Your task to perform on an android device: toggle show notifications on the lock screen Image 0: 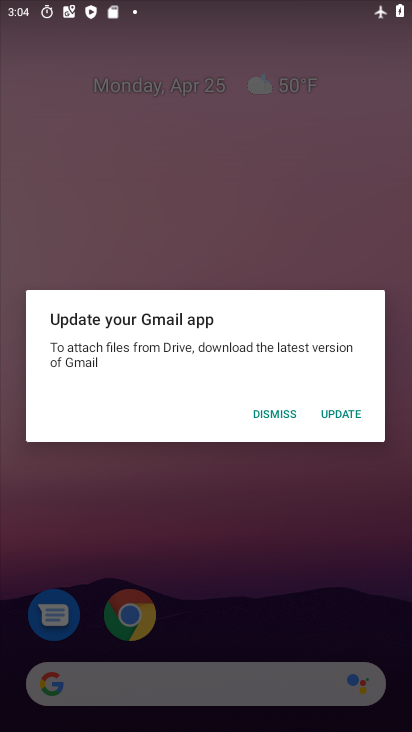
Step 0: press home button
Your task to perform on an android device: toggle show notifications on the lock screen Image 1: 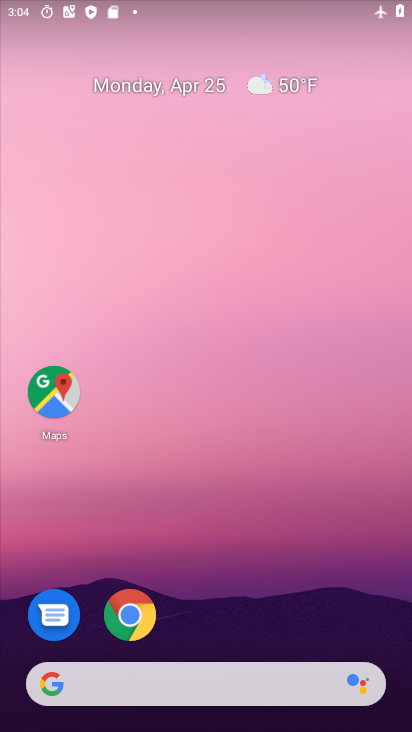
Step 1: drag from (217, 713) to (242, 169)
Your task to perform on an android device: toggle show notifications on the lock screen Image 2: 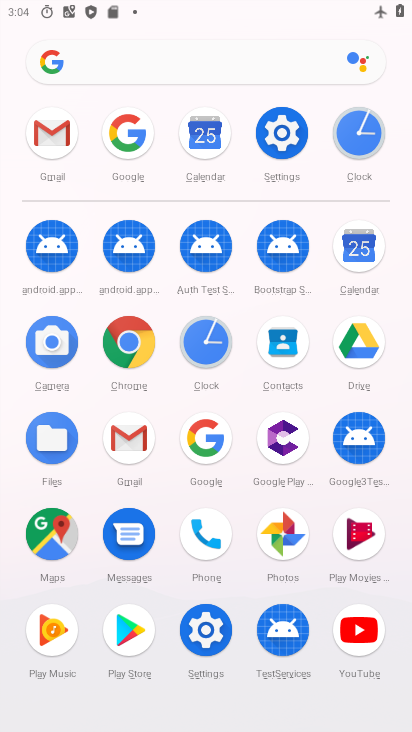
Step 2: click (285, 132)
Your task to perform on an android device: toggle show notifications on the lock screen Image 3: 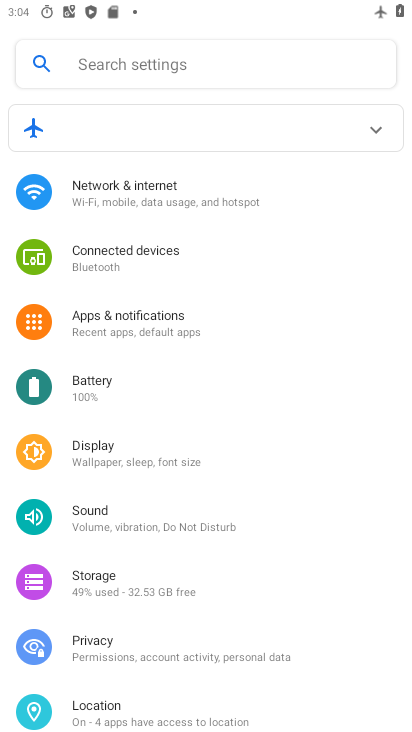
Step 3: click (125, 328)
Your task to perform on an android device: toggle show notifications on the lock screen Image 4: 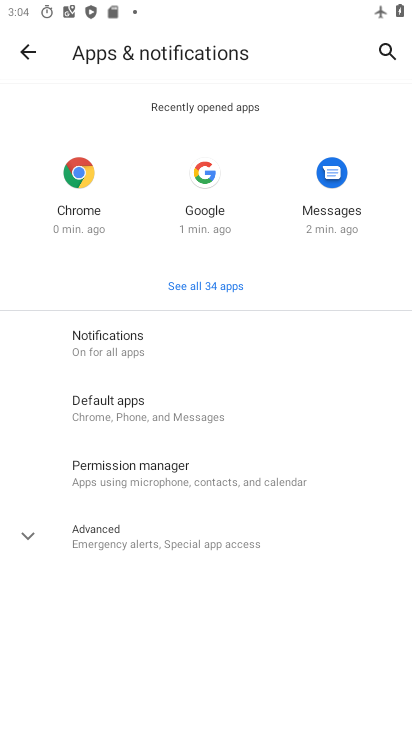
Step 4: click (114, 346)
Your task to perform on an android device: toggle show notifications on the lock screen Image 5: 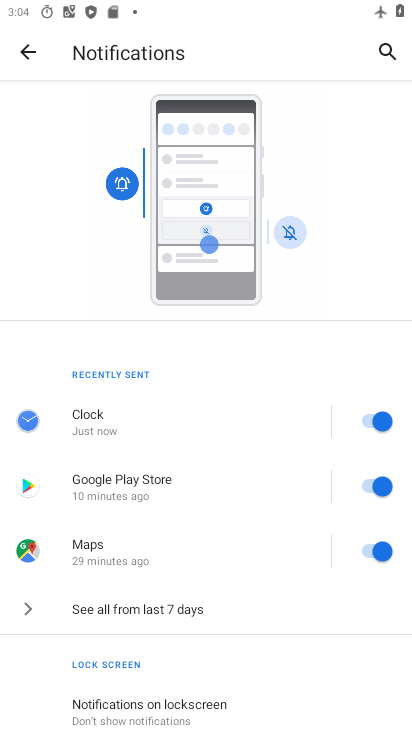
Step 5: drag from (231, 691) to (232, 432)
Your task to perform on an android device: toggle show notifications on the lock screen Image 6: 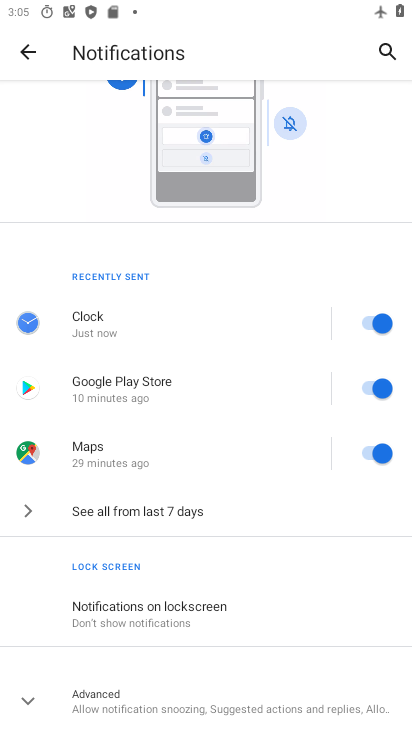
Step 6: click (143, 609)
Your task to perform on an android device: toggle show notifications on the lock screen Image 7: 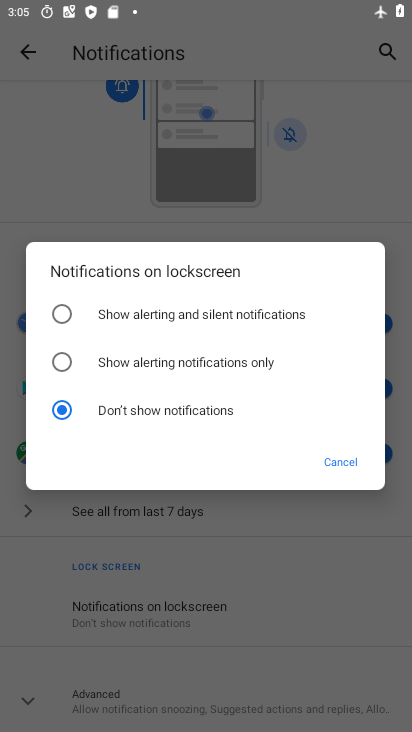
Step 7: click (63, 317)
Your task to perform on an android device: toggle show notifications on the lock screen Image 8: 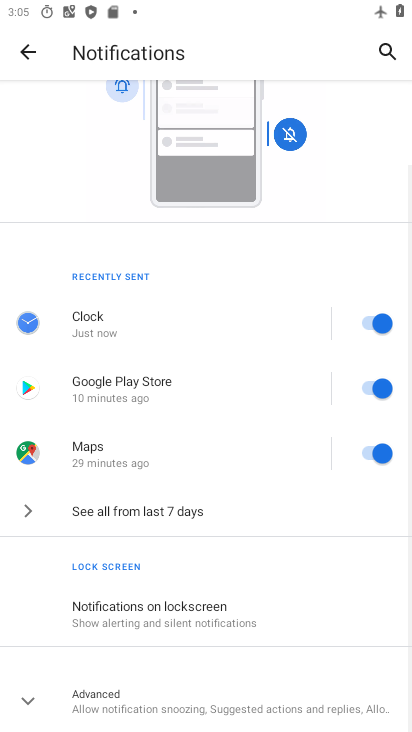
Step 8: task complete